Your task to perform on an android device: check battery use Image 0: 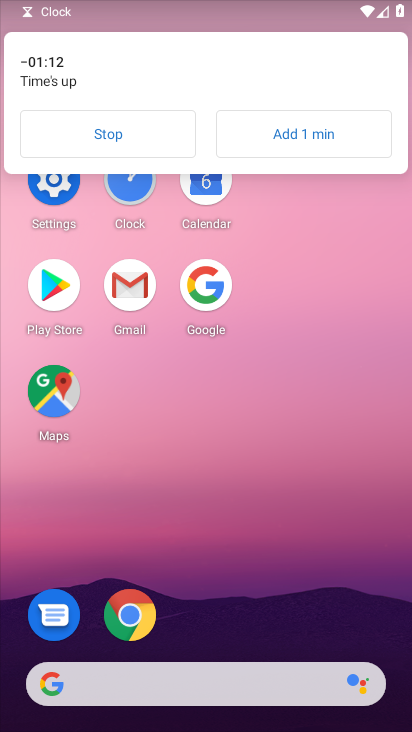
Step 0: click (43, 197)
Your task to perform on an android device: check battery use Image 1: 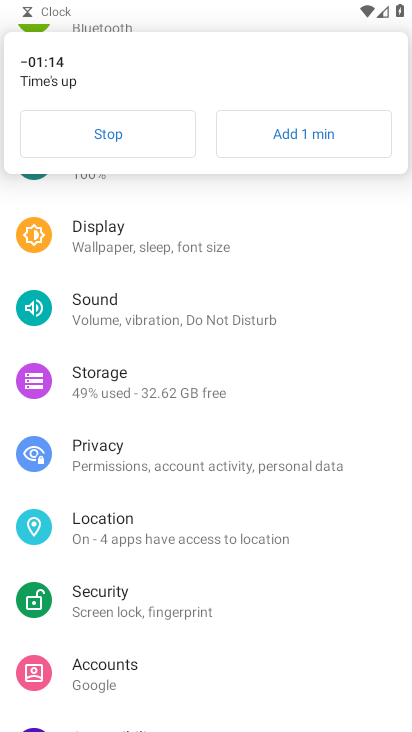
Step 1: click (148, 131)
Your task to perform on an android device: check battery use Image 2: 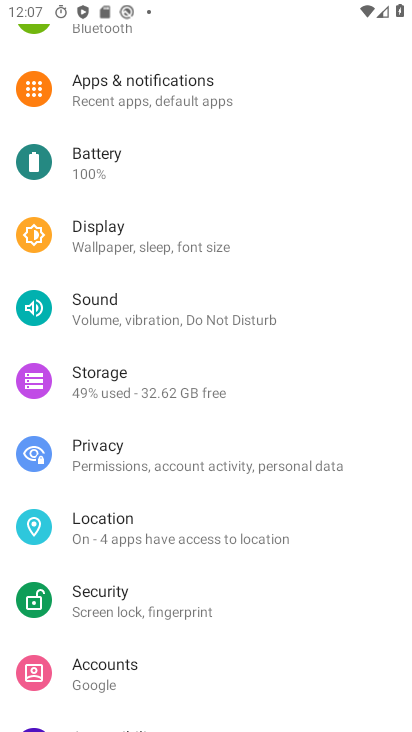
Step 2: click (218, 159)
Your task to perform on an android device: check battery use Image 3: 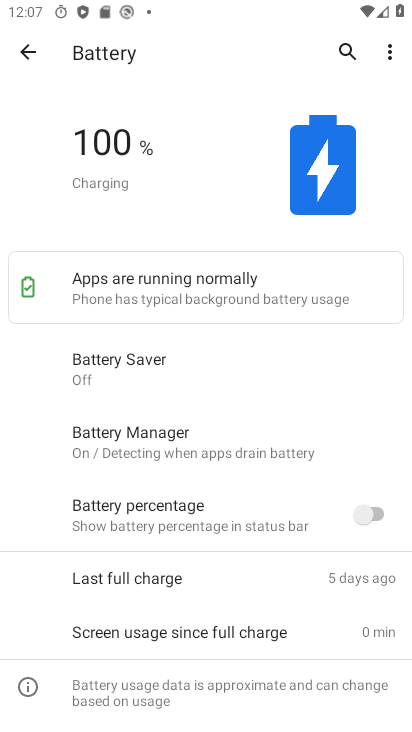
Step 3: click (387, 42)
Your task to perform on an android device: check battery use Image 4: 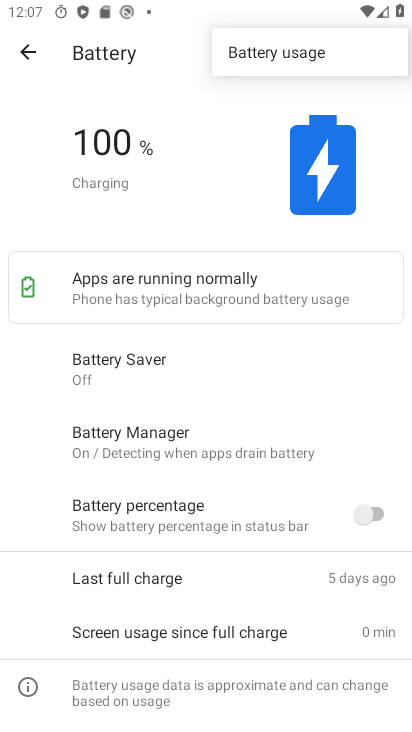
Step 4: click (338, 44)
Your task to perform on an android device: check battery use Image 5: 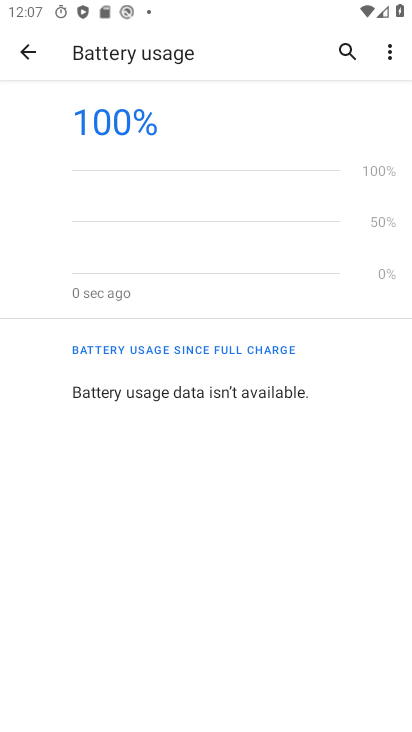
Step 5: task complete